Your task to perform on an android device: remove spam from my inbox in the gmail app Image 0: 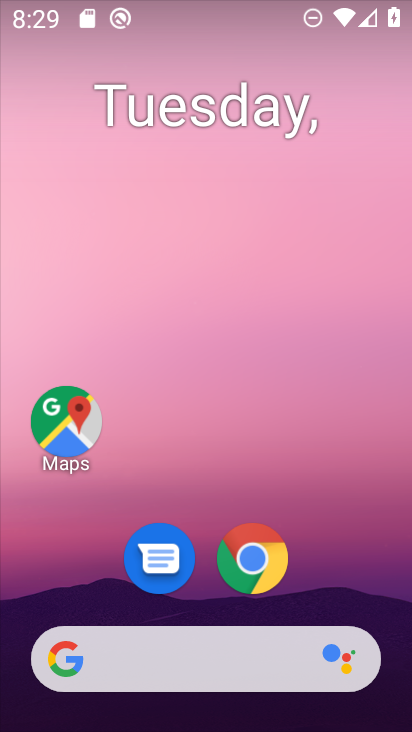
Step 0: drag from (202, 606) to (252, 256)
Your task to perform on an android device: remove spam from my inbox in the gmail app Image 1: 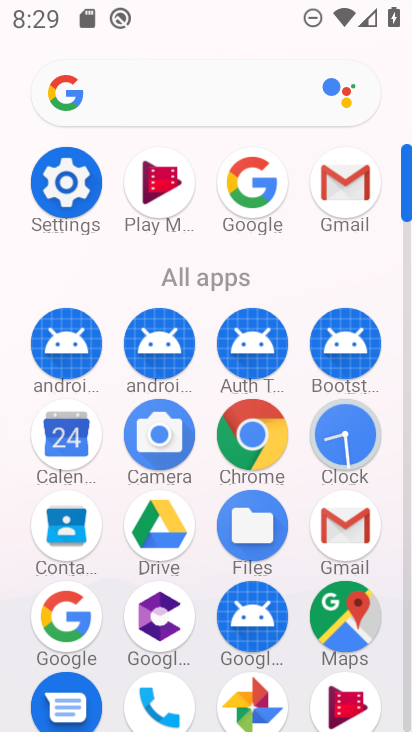
Step 1: click (345, 200)
Your task to perform on an android device: remove spam from my inbox in the gmail app Image 2: 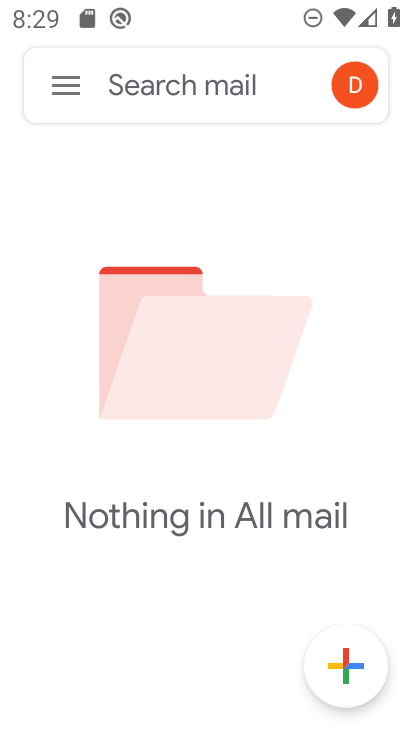
Step 2: click (76, 93)
Your task to perform on an android device: remove spam from my inbox in the gmail app Image 3: 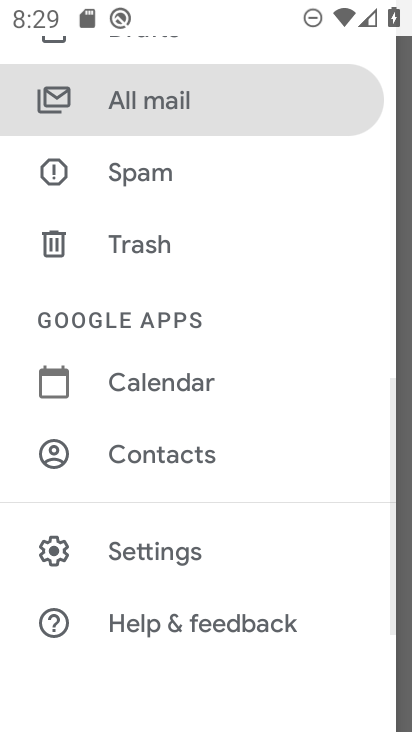
Step 3: click (84, 176)
Your task to perform on an android device: remove spam from my inbox in the gmail app Image 4: 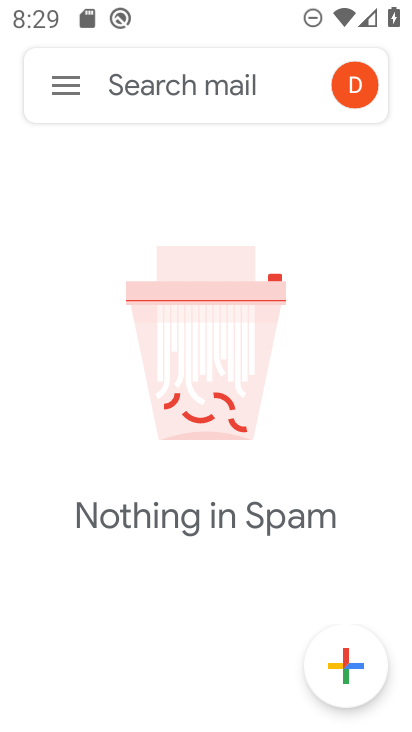
Step 4: task complete